Your task to perform on an android device: What's the weather? Image 0: 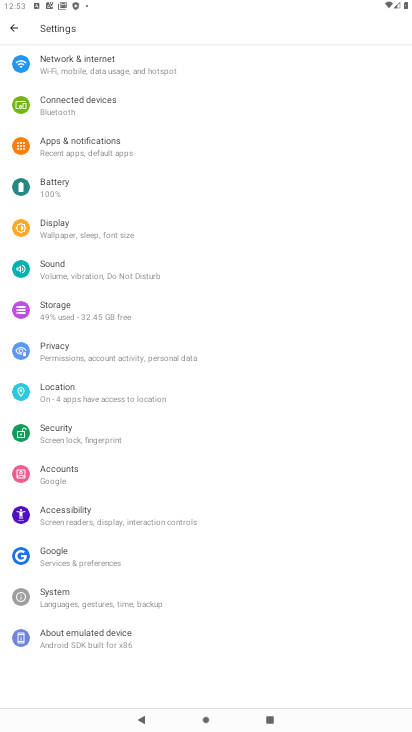
Step 0: press home button
Your task to perform on an android device: What's the weather? Image 1: 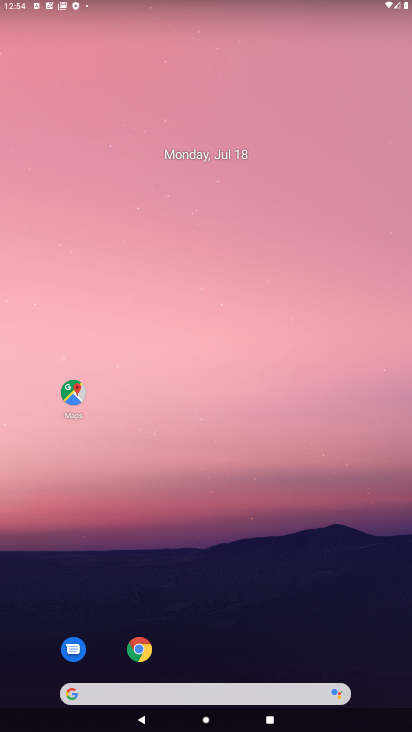
Step 1: drag from (1, 301) to (361, 312)
Your task to perform on an android device: What's the weather? Image 2: 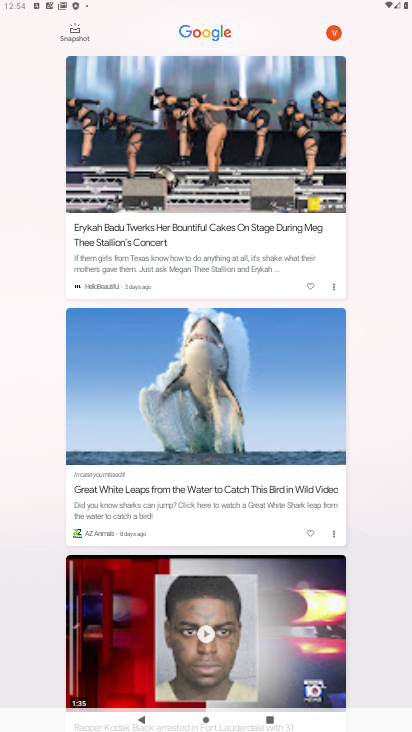
Step 2: drag from (402, 366) to (0, 310)
Your task to perform on an android device: What's the weather? Image 3: 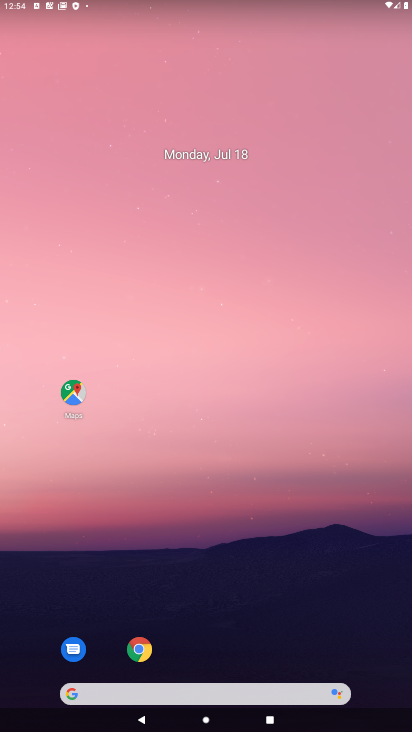
Step 3: click (139, 693)
Your task to perform on an android device: What's the weather? Image 4: 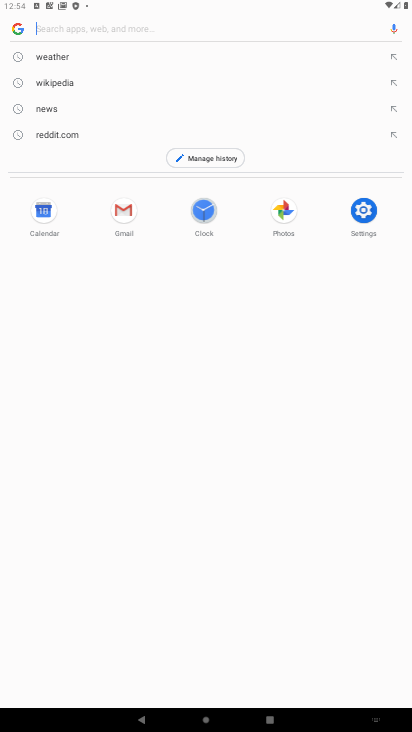
Step 4: click (48, 54)
Your task to perform on an android device: What's the weather? Image 5: 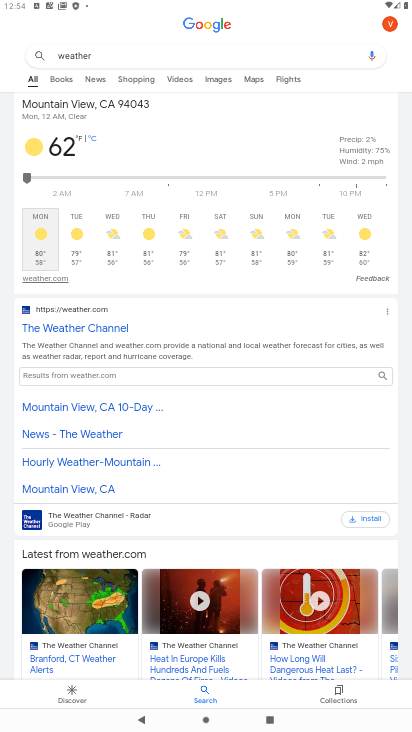
Step 5: task complete